Your task to perform on an android device: Open Google Image 0: 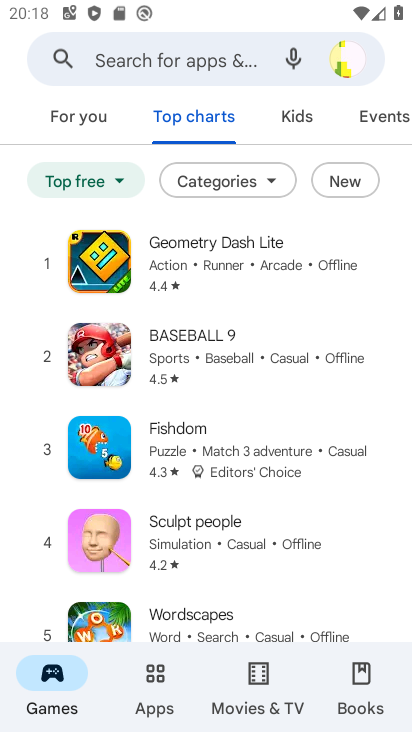
Step 0: press home button
Your task to perform on an android device: Open Google Image 1: 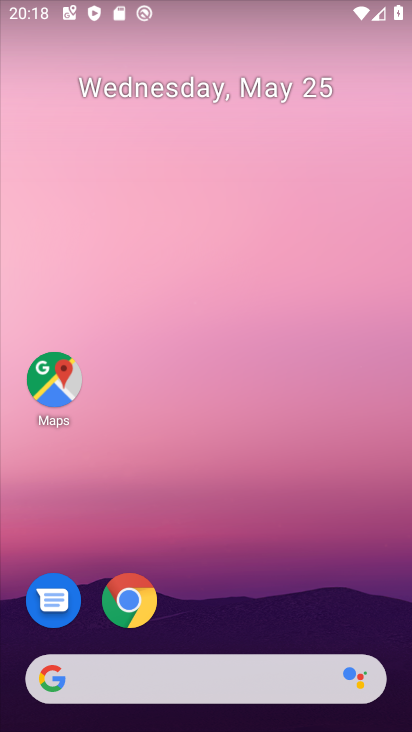
Step 1: drag from (261, 588) to (233, 158)
Your task to perform on an android device: Open Google Image 2: 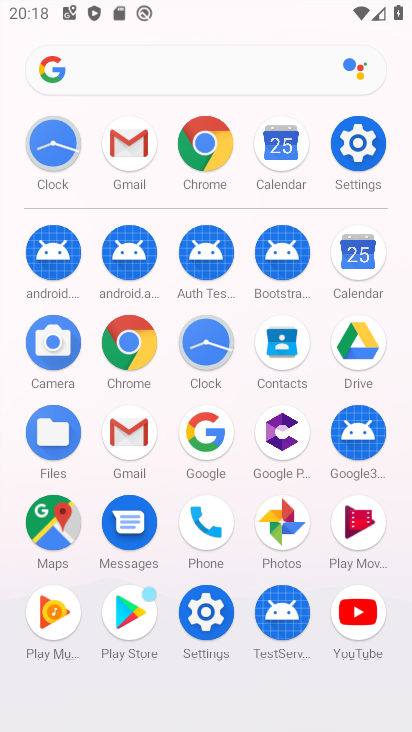
Step 2: click (189, 444)
Your task to perform on an android device: Open Google Image 3: 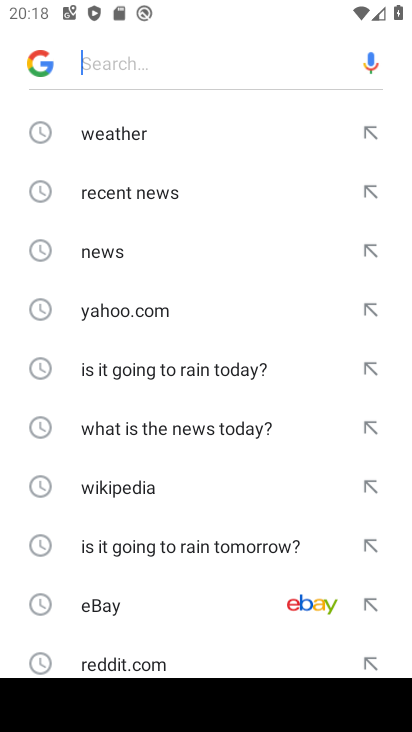
Step 3: task complete